Your task to perform on an android device: Go to Wikipedia Image 0: 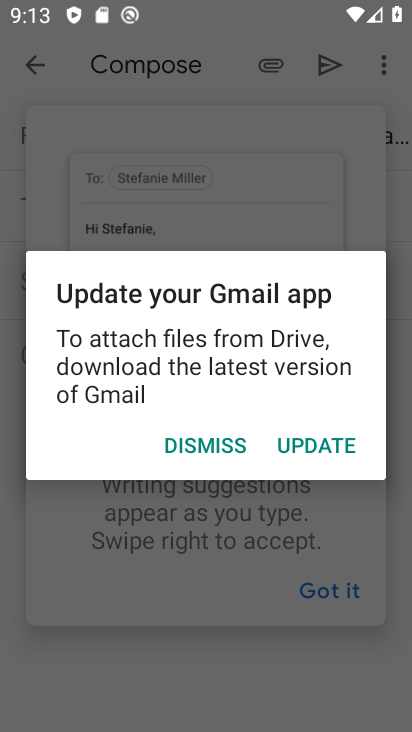
Step 0: press home button
Your task to perform on an android device: Go to Wikipedia Image 1: 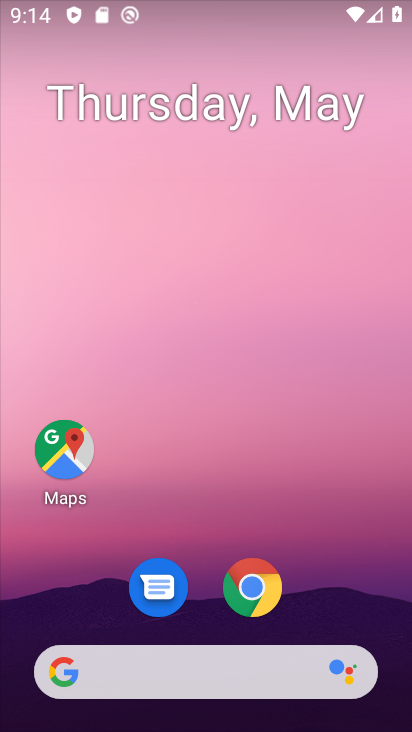
Step 1: click (250, 585)
Your task to perform on an android device: Go to Wikipedia Image 2: 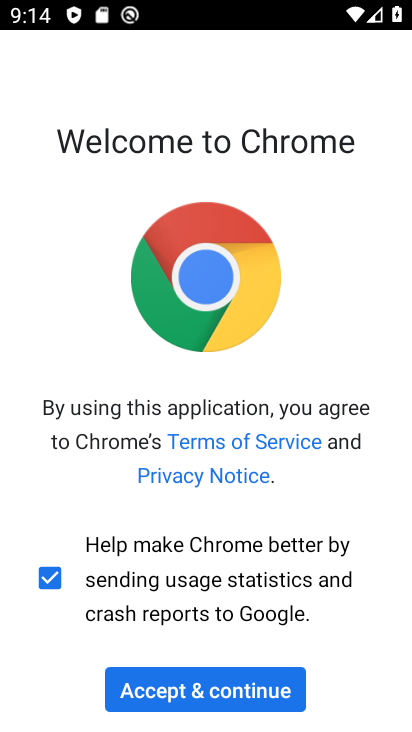
Step 2: click (203, 689)
Your task to perform on an android device: Go to Wikipedia Image 3: 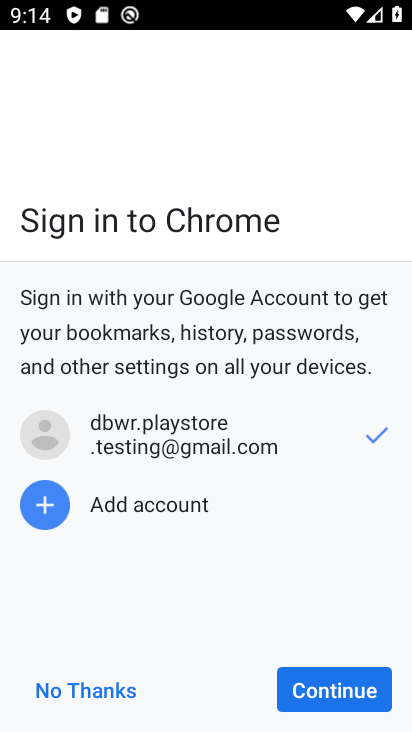
Step 3: click (123, 691)
Your task to perform on an android device: Go to Wikipedia Image 4: 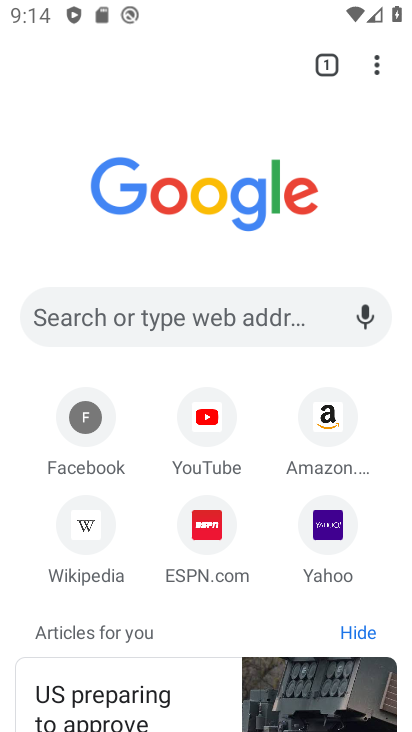
Step 4: click (94, 534)
Your task to perform on an android device: Go to Wikipedia Image 5: 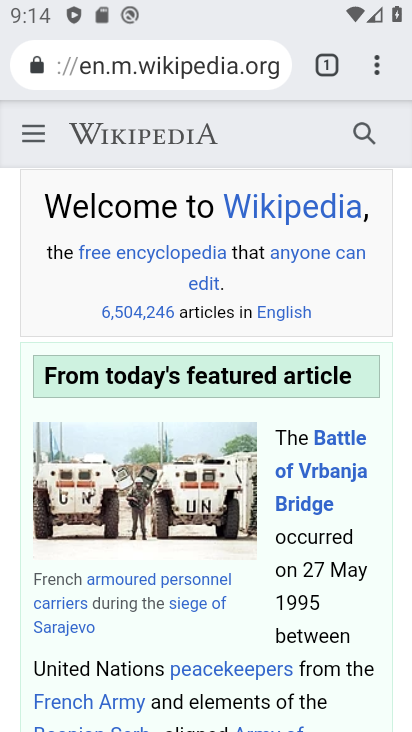
Step 5: task complete